Your task to perform on an android device: turn on translation in the chrome app Image 0: 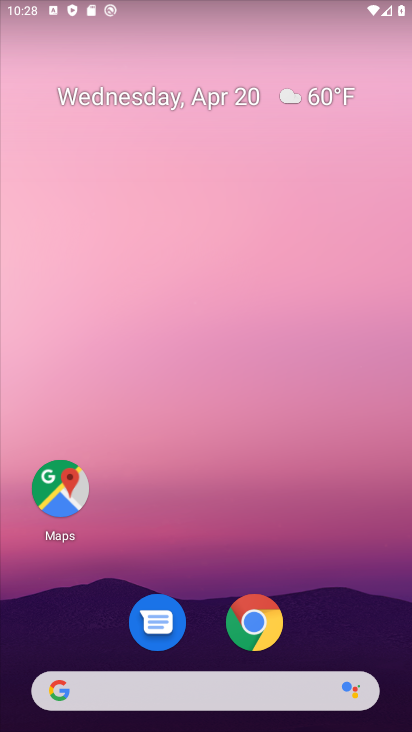
Step 0: drag from (355, 600) to (299, 70)
Your task to perform on an android device: turn on translation in the chrome app Image 1: 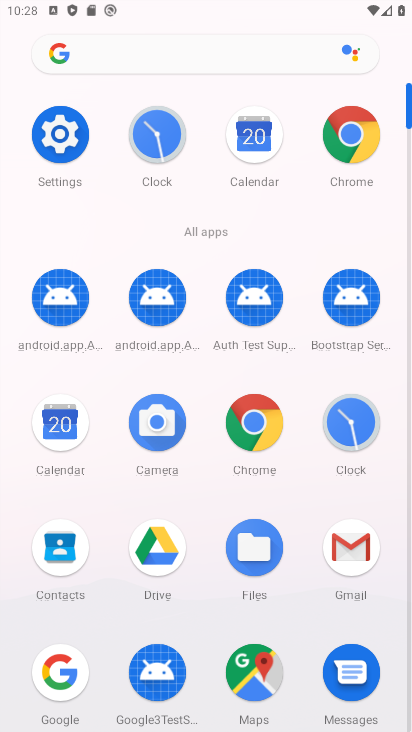
Step 1: click (353, 141)
Your task to perform on an android device: turn on translation in the chrome app Image 2: 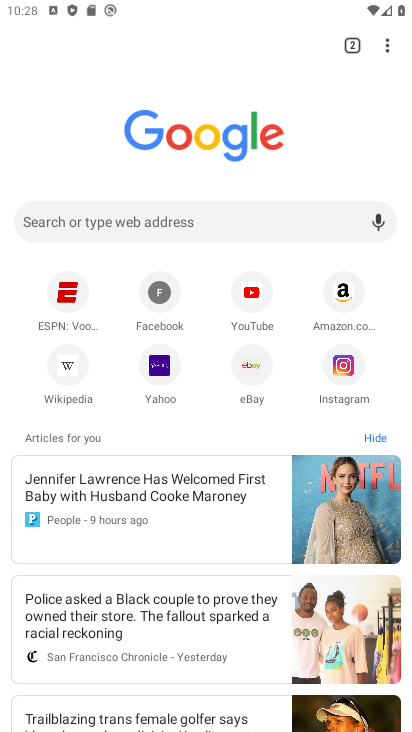
Step 2: drag from (386, 27) to (232, 394)
Your task to perform on an android device: turn on translation in the chrome app Image 3: 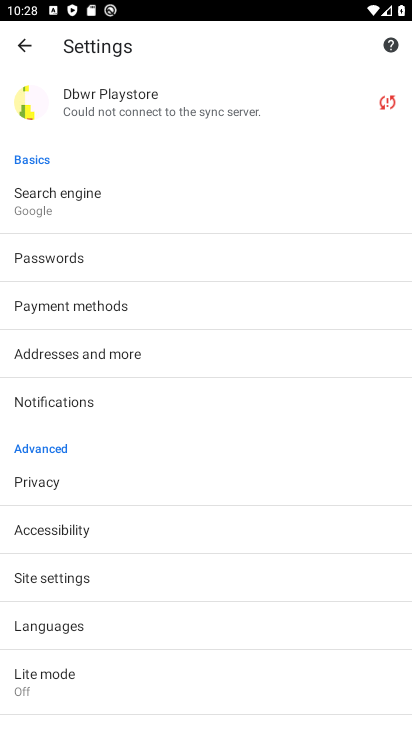
Step 3: drag from (90, 641) to (61, 243)
Your task to perform on an android device: turn on translation in the chrome app Image 4: 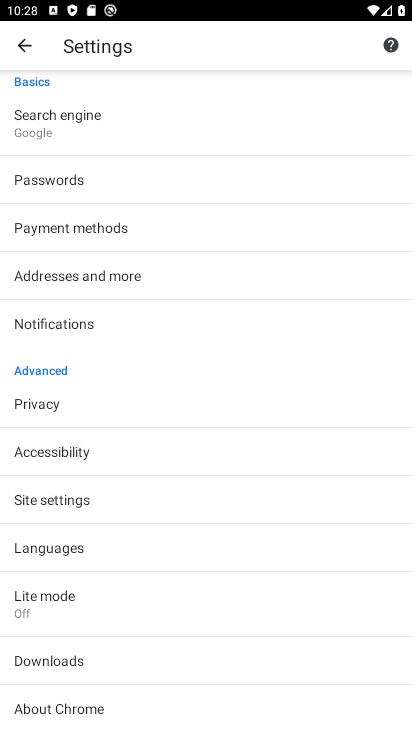
Step 4: click (55, 548)
Your task to perform on an android device: turn on translation in the chrome app Image 5: 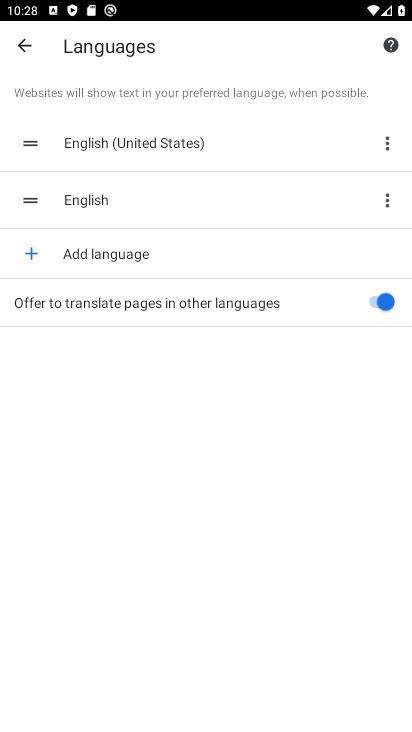
Step 5: click (377, 309)
Your task to perform on an android device: turn on translation in the chrome app Image 6: 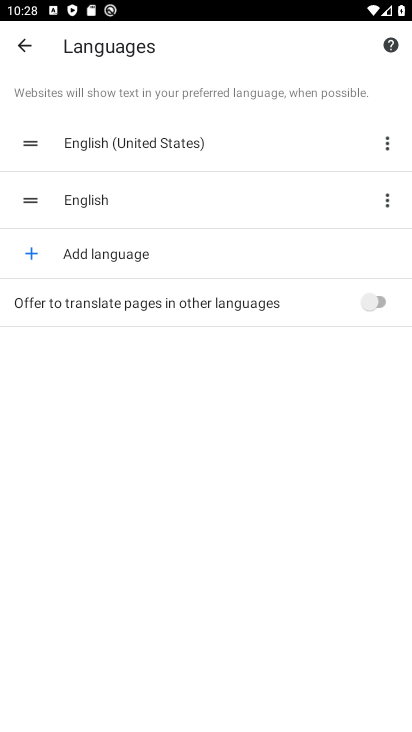
Step 6: task complete